Your task to perform on an android device: allow cookies in the chrome app Image 0: 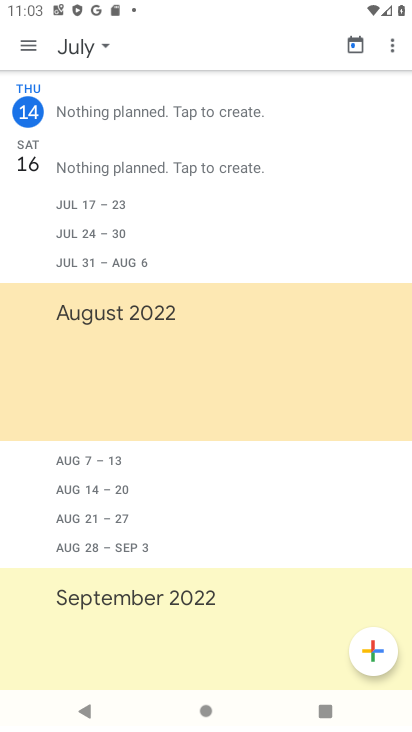
Step 0: press home button
Your task to perform on an android device: allow cookies in the chrome app Image 1: 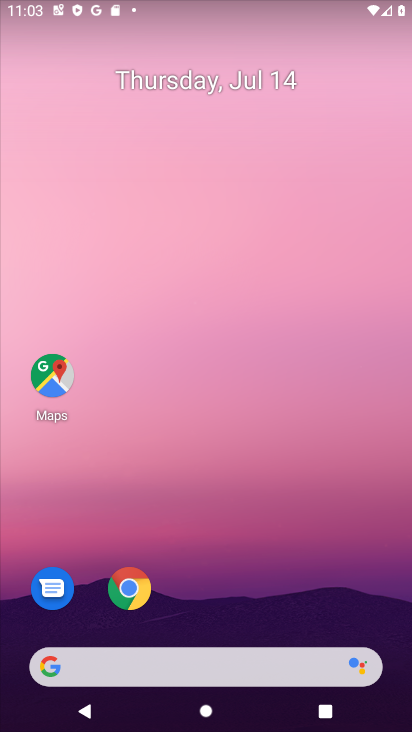
Step 1: click (241, 565)
Your task to perform on an android device: allow cookies in the chrome app Image 2: 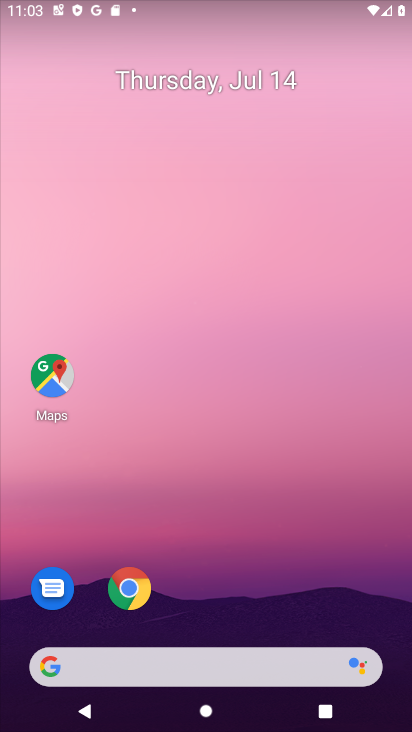
Step 2: click (133, 582)
Your task to perform on an android device: allow cookies in the chrome app Image 3: 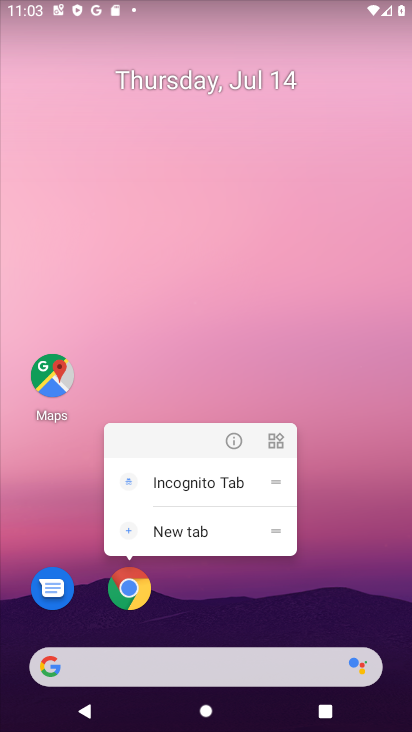
Step 3: click (133, 590)
Your task to perform on an android device: allow cookies in the chrome app Image 4: 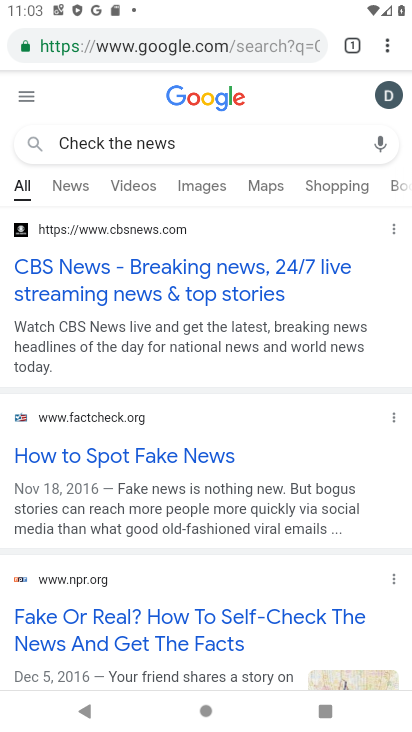
Step 4: drag from (393, 41) to (257, 566)
Your task to perform on an android device: allow cookies in the chrome app Image 5: 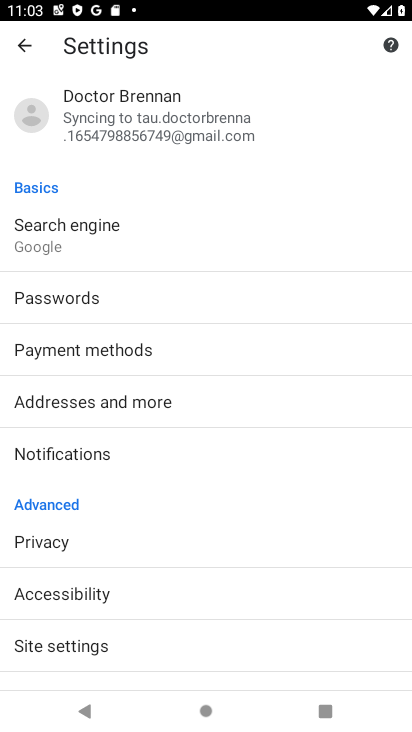
Step 5: drag from (139, 624) to (171, 535)
Your task to perform on an android device: allow cookies in the chrome app Image 6: 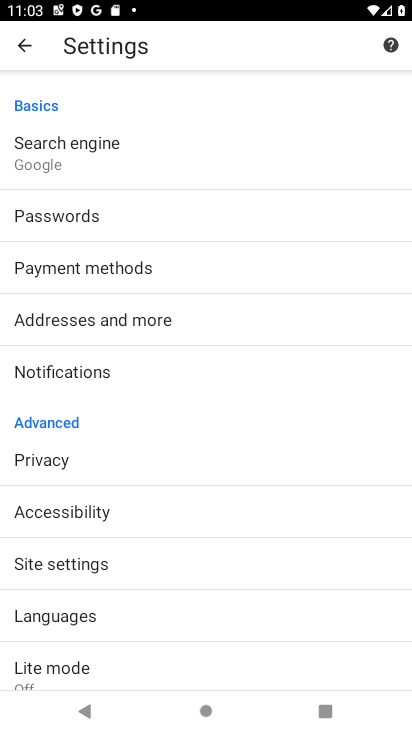
Step 6: click (120, 565)
Your task to perform on an android device: allow cookies in the chrome app Image 7: 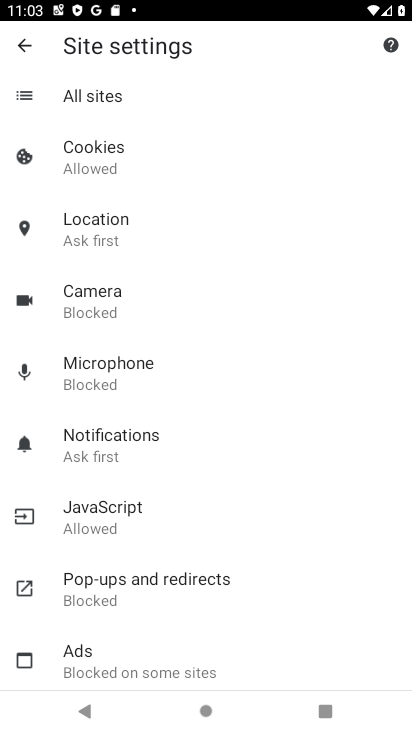
Step 7: click (125, 146)
Your task to perform on an android device: allow cookies in the chrome app Image 8: 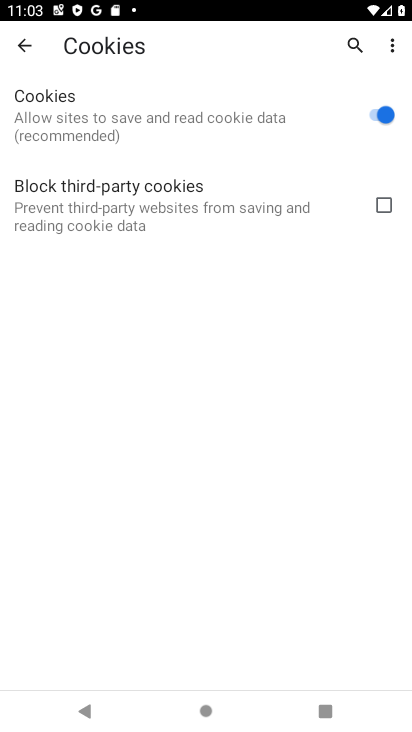
Step 8: task complete